Your task to perform on an android device: toggle pop-ups in chrome Image 0: 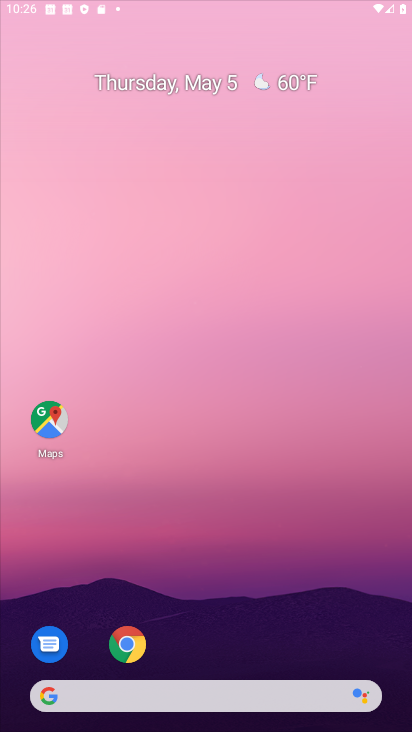
Step 0: drag from (190, 671) to (334, 53)
Your task to perform on an android device: toggle pop-ups in chrome Image 1: 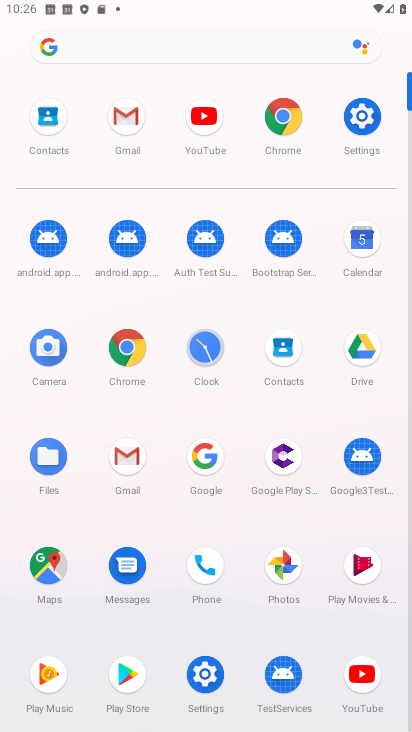
Step 1: click (284, 116)
Your task to perform on an android device: toggle pop-ups in chrome Image 2: 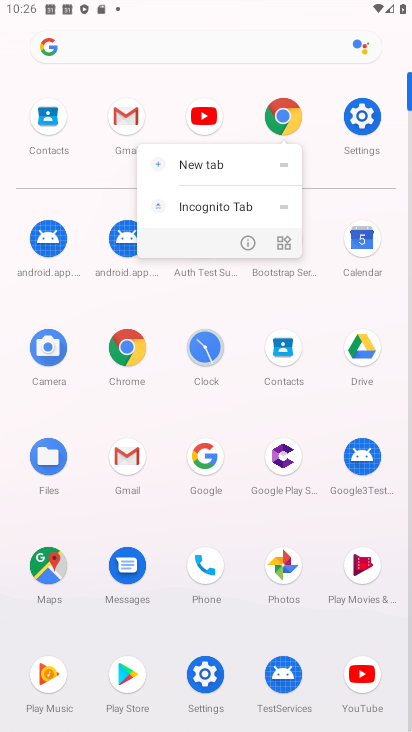
Step 2: click (245, 242)
Your task to perform on an android device: toggle pop-ups in chrome Image 3: 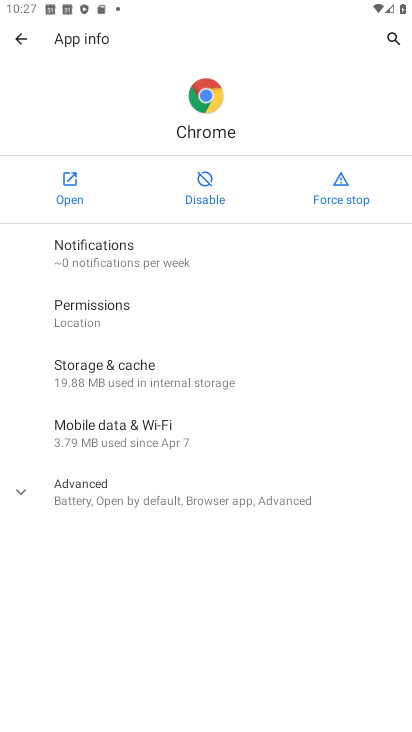
Step 3: click (64, 181)
Your task to perform on an android device: toggle pop-ups in chrome Image 4: 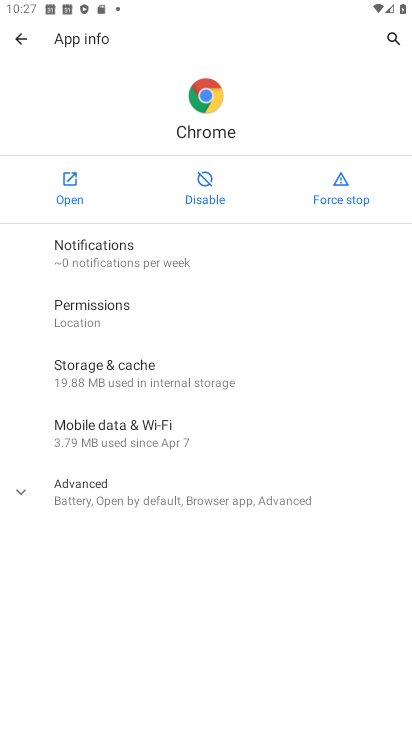
Step 4: click (64, 181)
Your task to perform on an android device: toggle pop-ups in chrome Image 5: 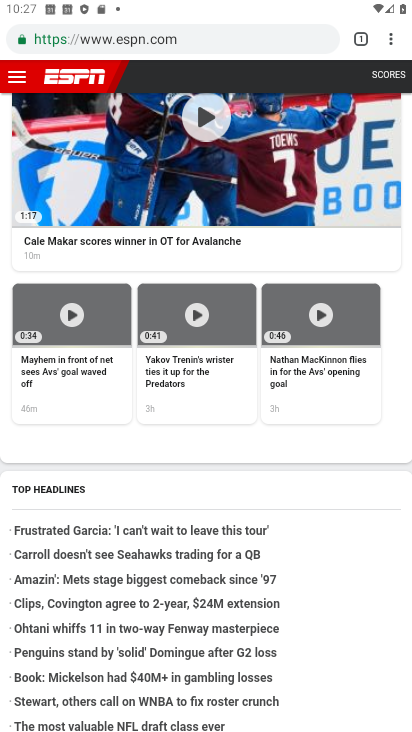
Step 5: drag from (180, 504) to (197, 173)
Your task to perform on an android device: toggle pop-ups in chrome Image 6: 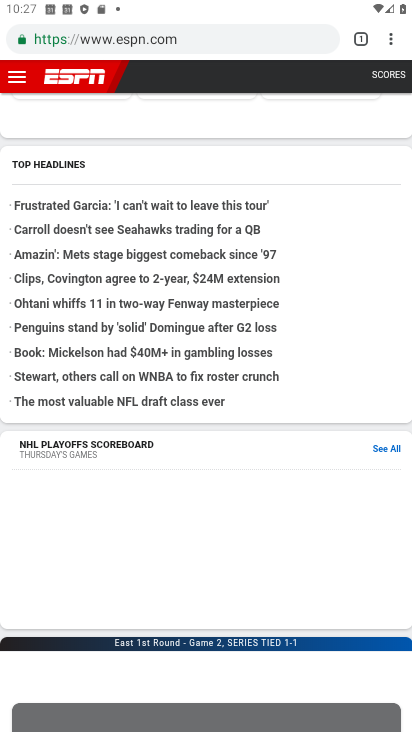
Step 6: click (388, 43)
Your task to perform on an android device: toggle pop-ups in chrome Image 7: 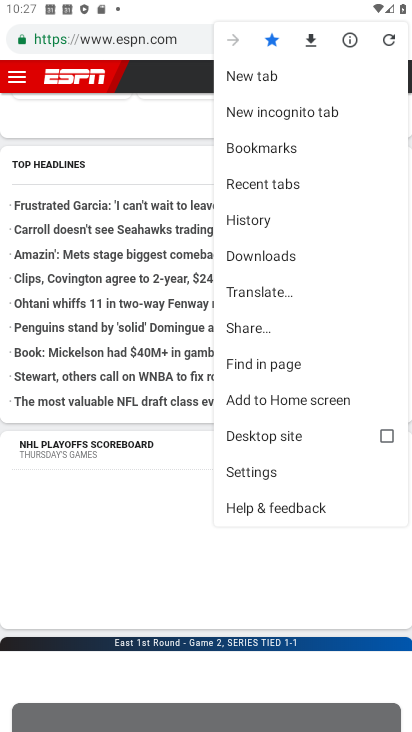
Step 7: click (286, 469)
Your task to perform on an android device: toggle pop-ups in chrome Image 8: 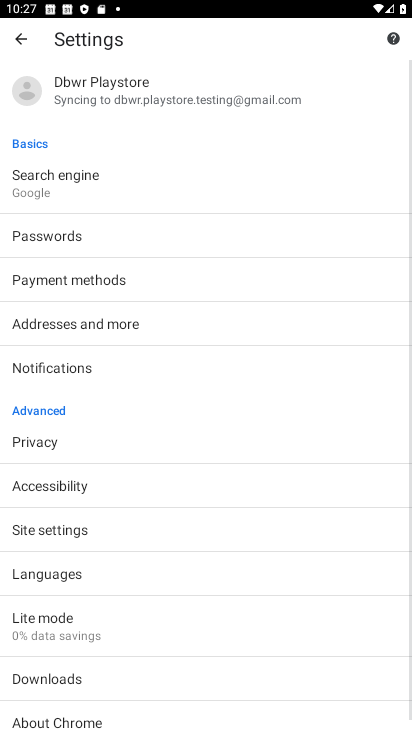
Step 8: drag from (208, 525) to (249, 252)
Your task to perform on an android device: toggle pop-ups in chrome Image 9: 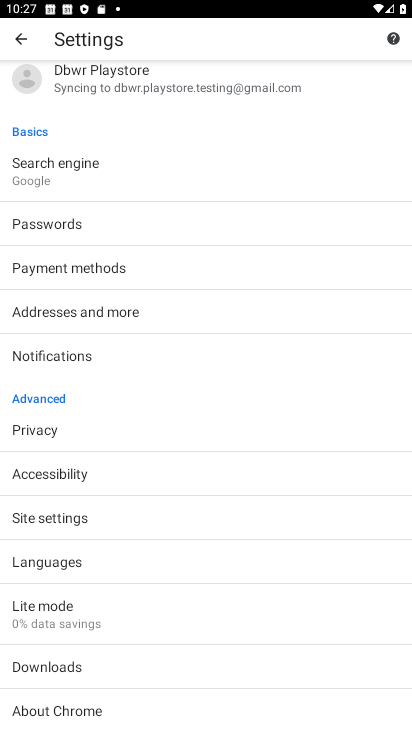
Step 9: click (94, 511)
Your task to perform on an android device: toggle pop-ups in chrome Image 10: 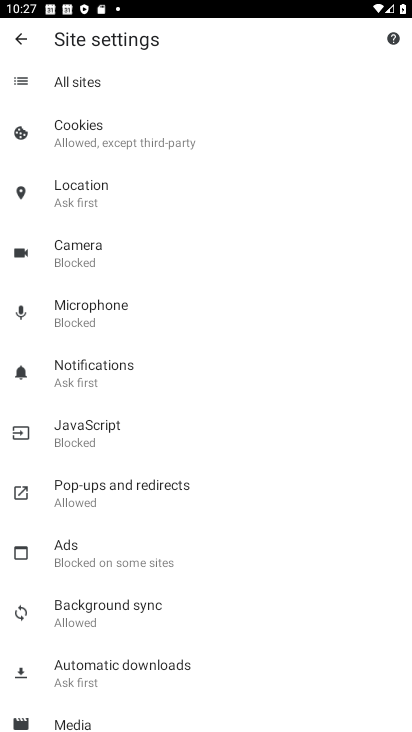
Step 10: click (102, 490)
Your task to perform on an android device: toggle pop-ups in chrome Image 11: 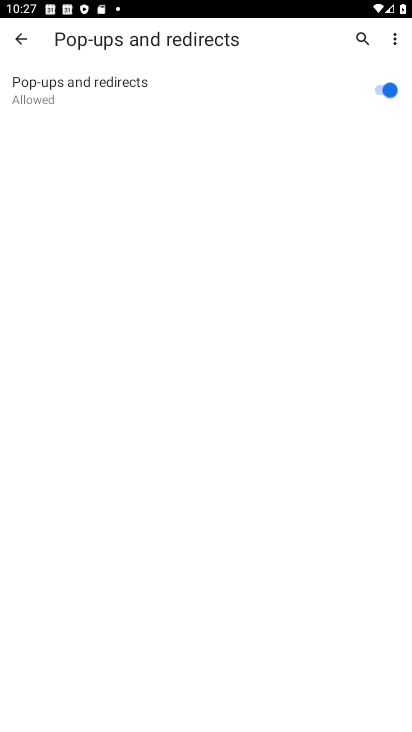
Step 11: click (393, 89)
Your task to perform on an android device: toggle pop-ups in chrome Image 12: 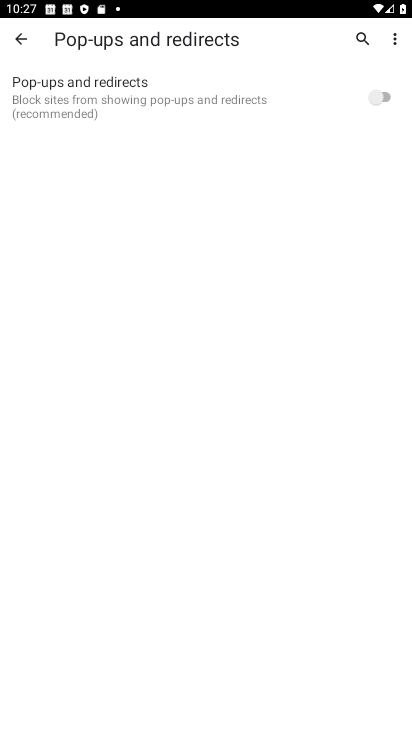
Step 12: task complete